Your task to perform on an android device: change the clock display to digital Image 0: 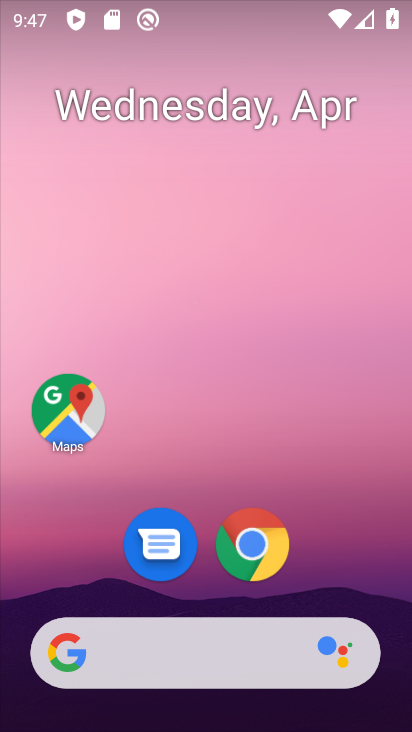
Step 0: drag from (345, 557) to (236, 3)
Your task to perform on an android device: change the clock display to digital Image 1: 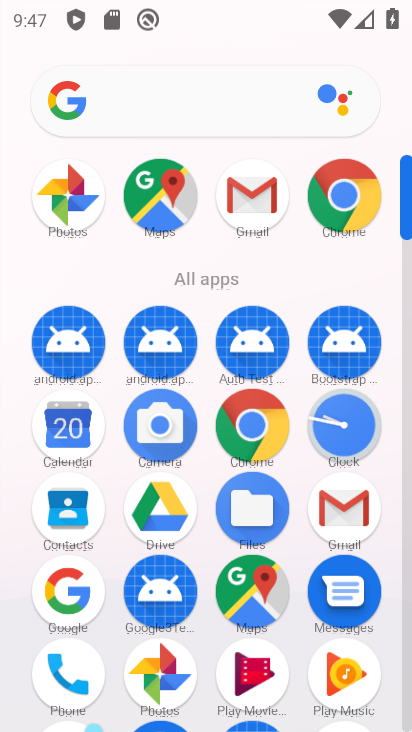
Step 1: click (405, 460)
Your task to perform on an android device: change the clock display to digital Image 2: 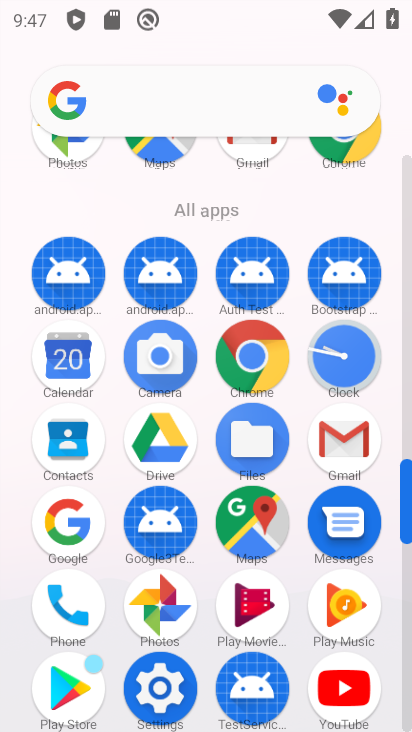
Step 2: click (342, 375)
Your task to perform on an android device: change the clock display to digital Image 3: 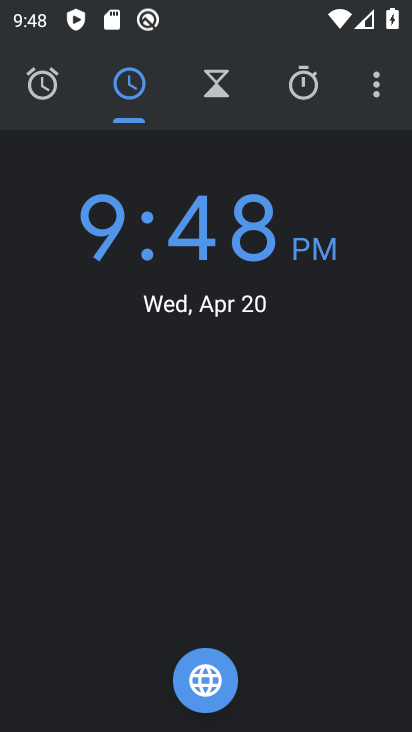
Step 3: click (365, 109)
Your task to perform on an android device: change the clock display to digital Image 4: 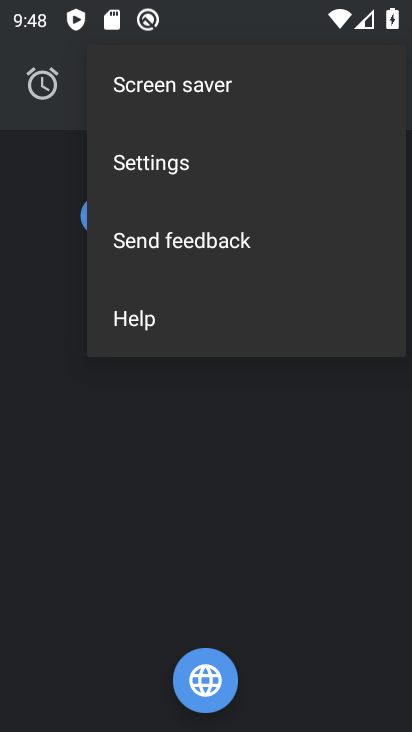
Step 4: click (322, 160)
Your task to perform on an android device: change the clock display to digital Image 5: 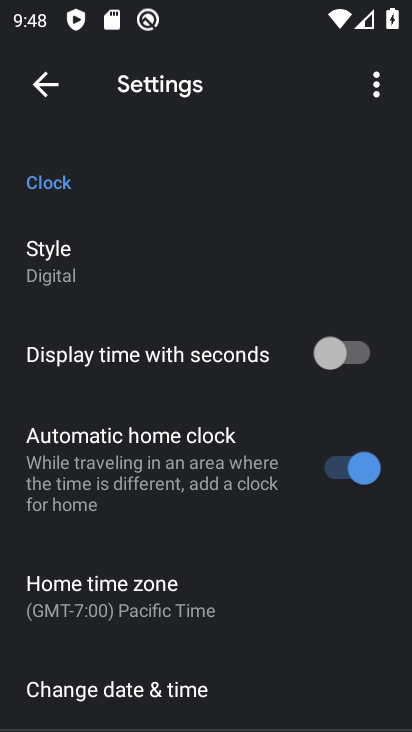
Step 5: drag from (234, 641) to (227, 516)
Your task to perform on an android device: change the clock display to digital Image 6: 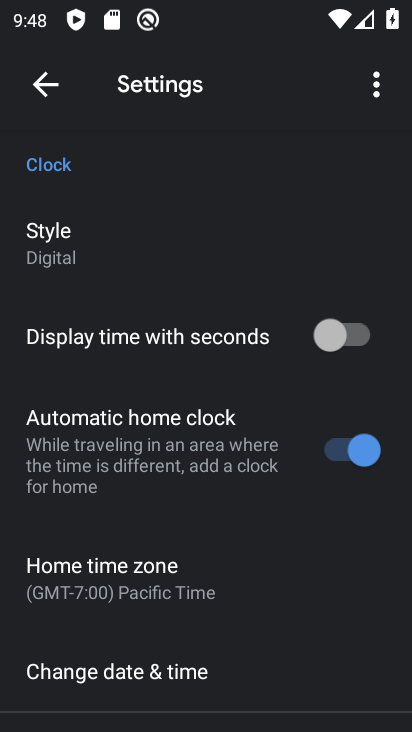
Step 6: click (179, 225)
Your task to perform on an android device: change the clock display to digital Image 7: 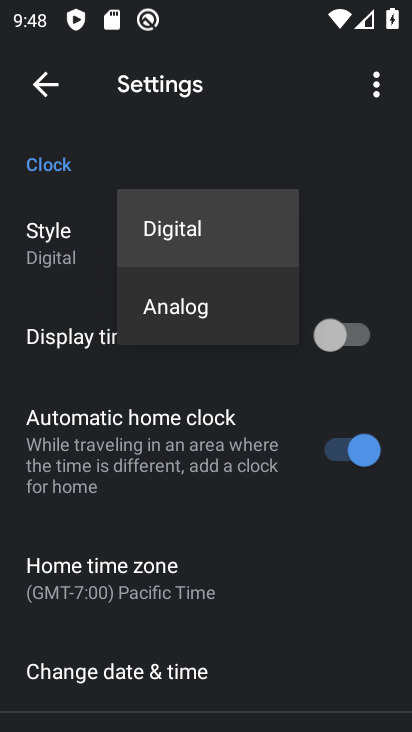
Step 7: task complete